Your task to perform on an android device: open wifi settings Image 0: 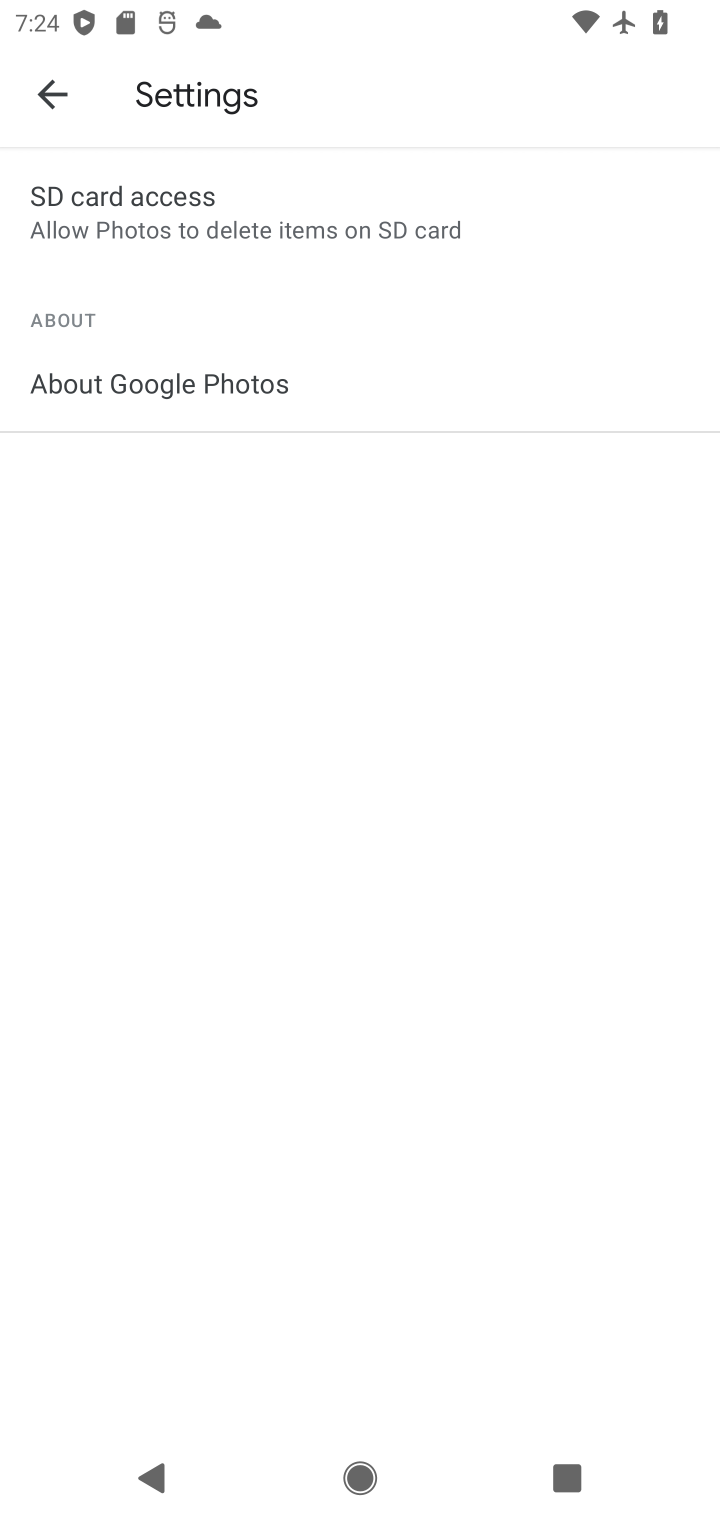
Step 0: press home button
Your task to perform on an android device: open wifi settings Image 1: 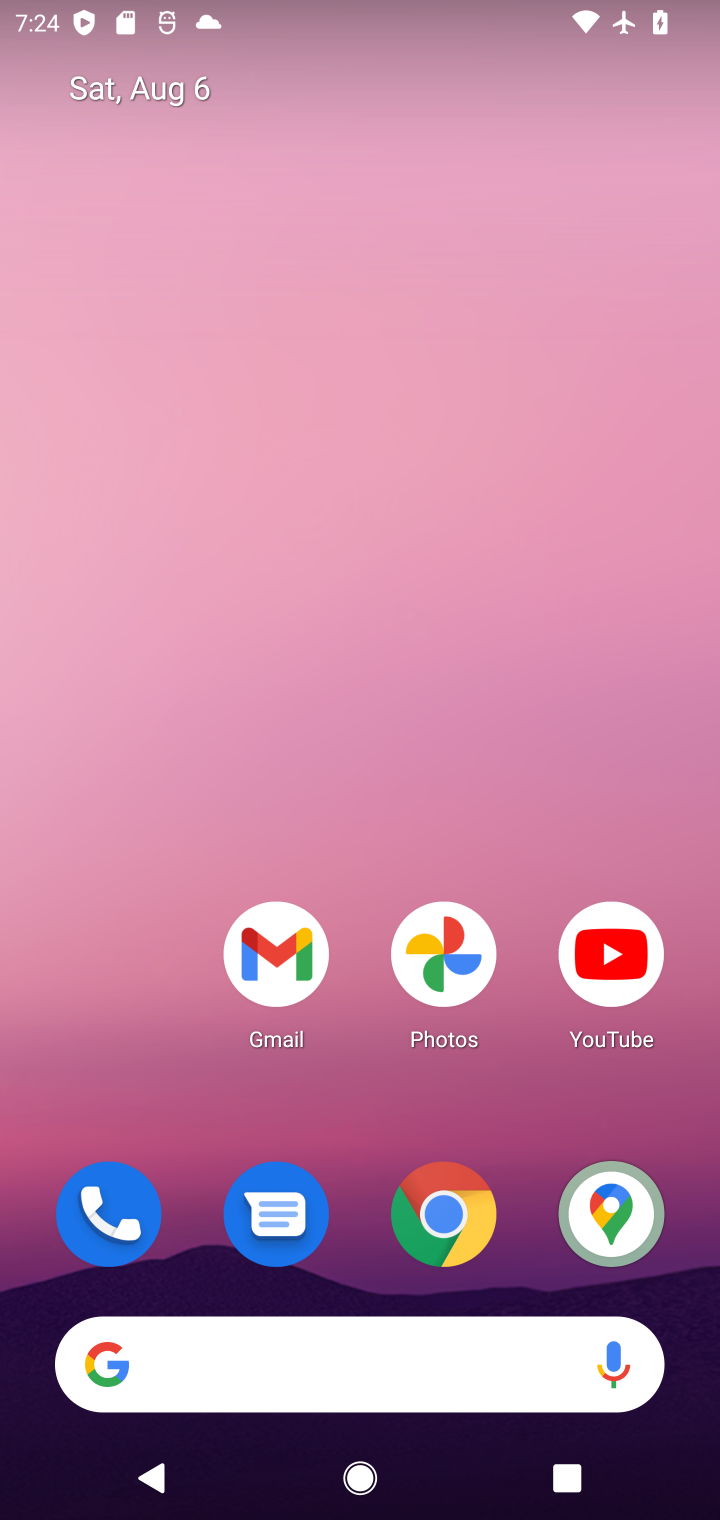
Step 1: drag from (329, 1132) to (174, 0)
Your task to perform on an android device: open wifi settings Image 2: 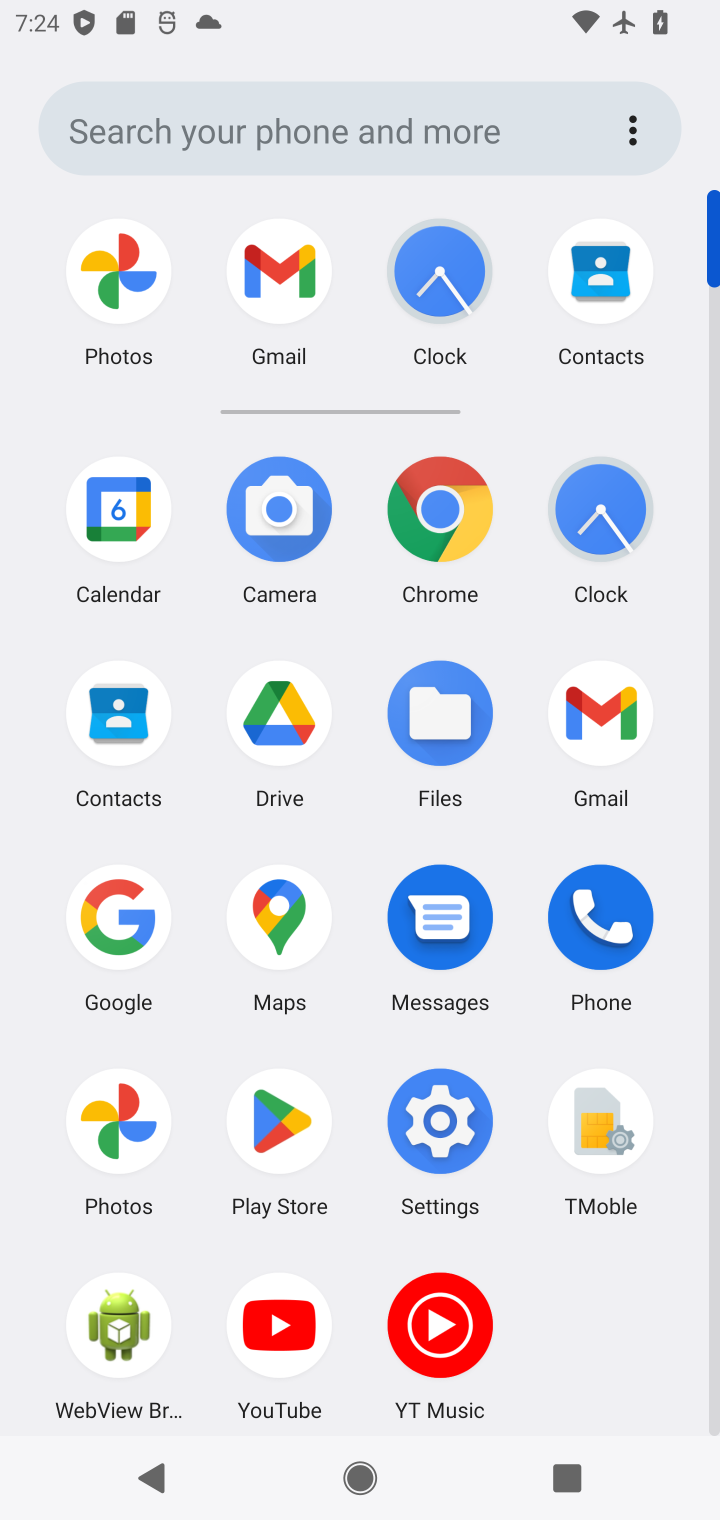
Step 2: click (455, 1117)
Your task to perform on an android device: open wifi settings Image 3: 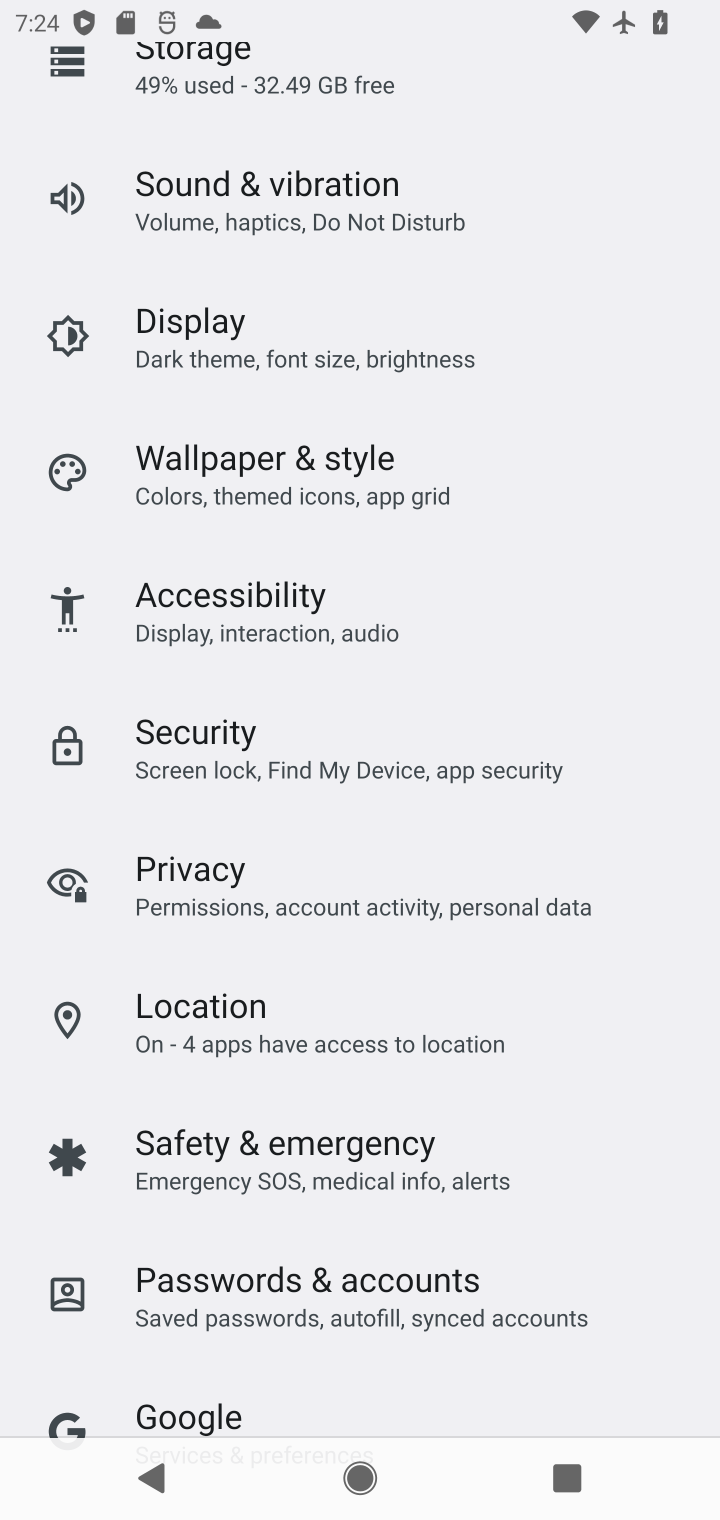
Step 3: drag from (384, 448) to (291, 1299)
Your task to perform on an android device: open wifi settings Image 4: 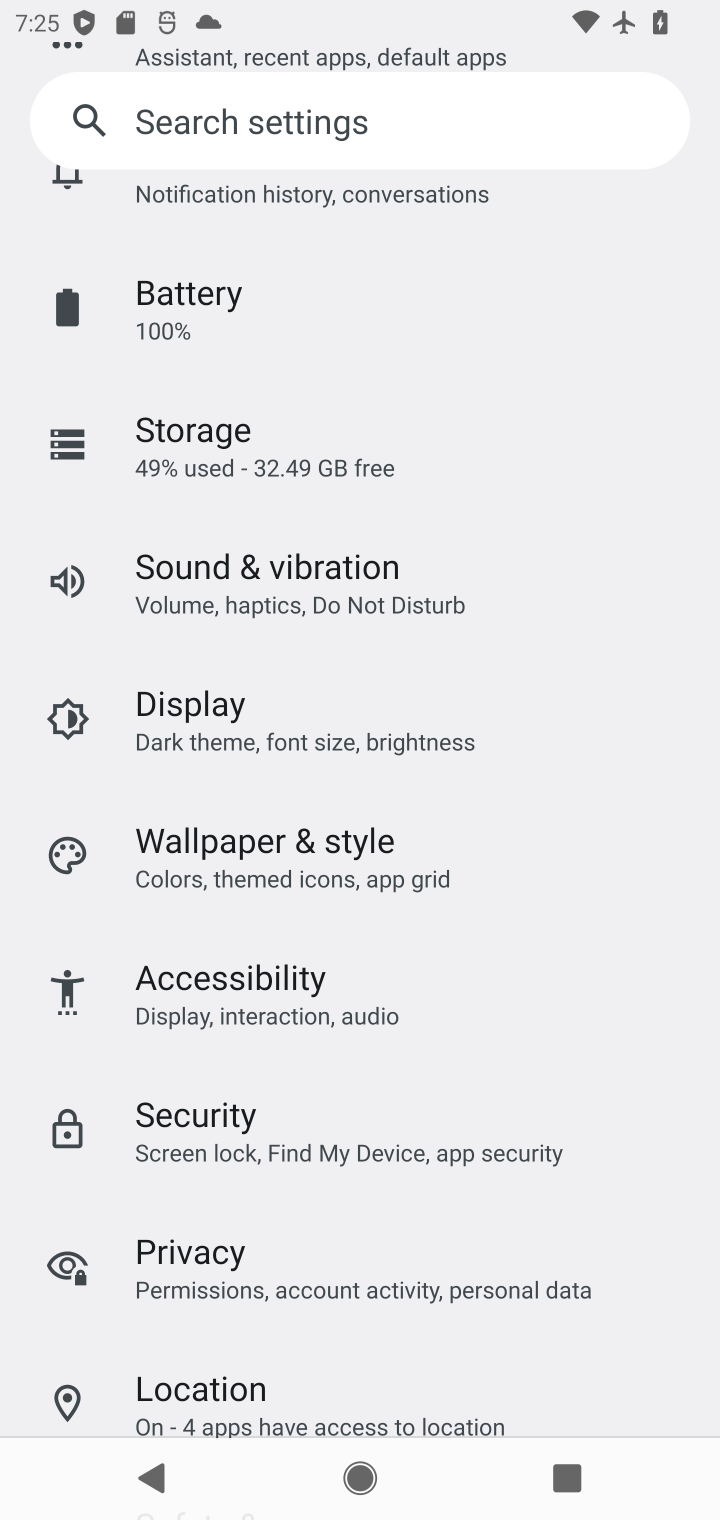
Step 4: drag from (320, 757) to (317, 1227)
Your task to perform on an android device: open wifi settings Image 5: 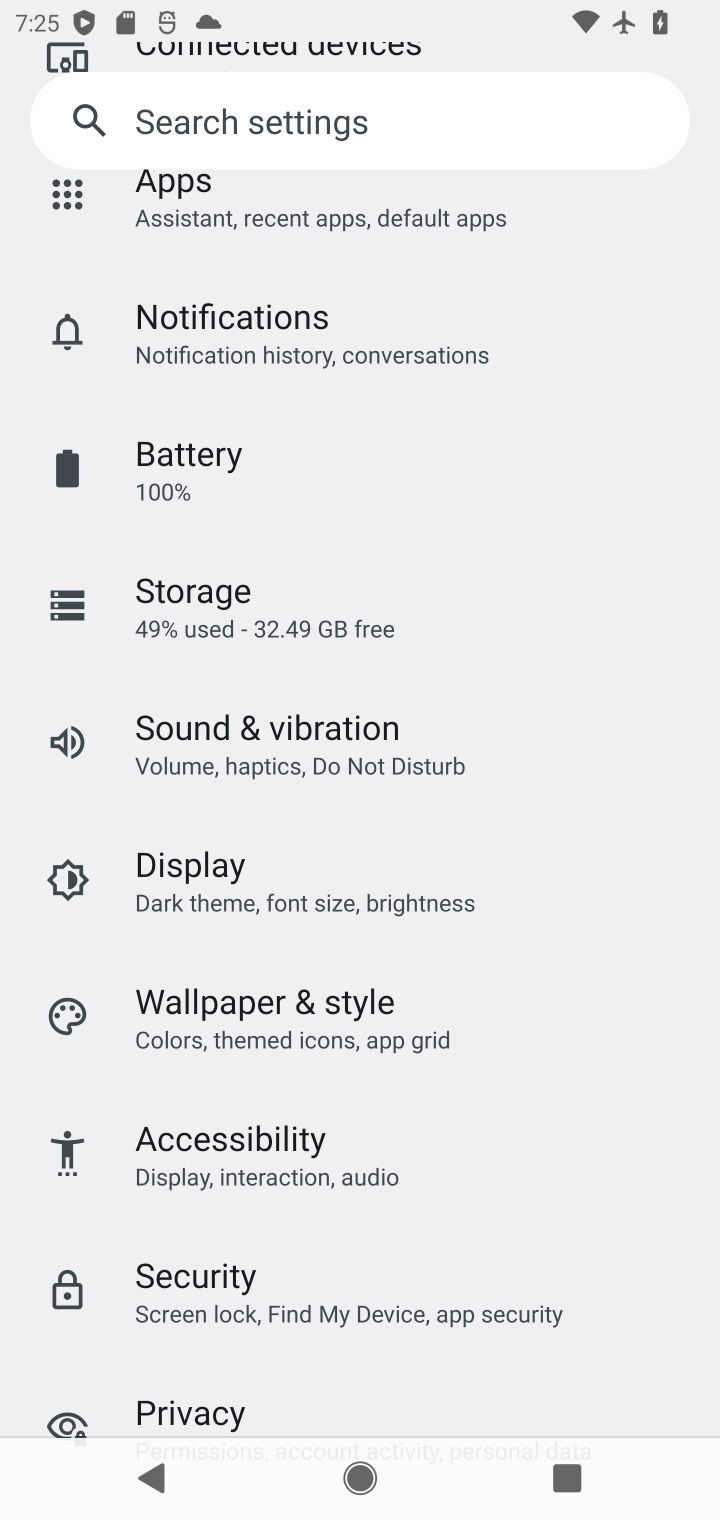
Step 5: drag from (317, 421) to (319, 1267)
Your task to perform on an android device: open wifi settings Image 6: 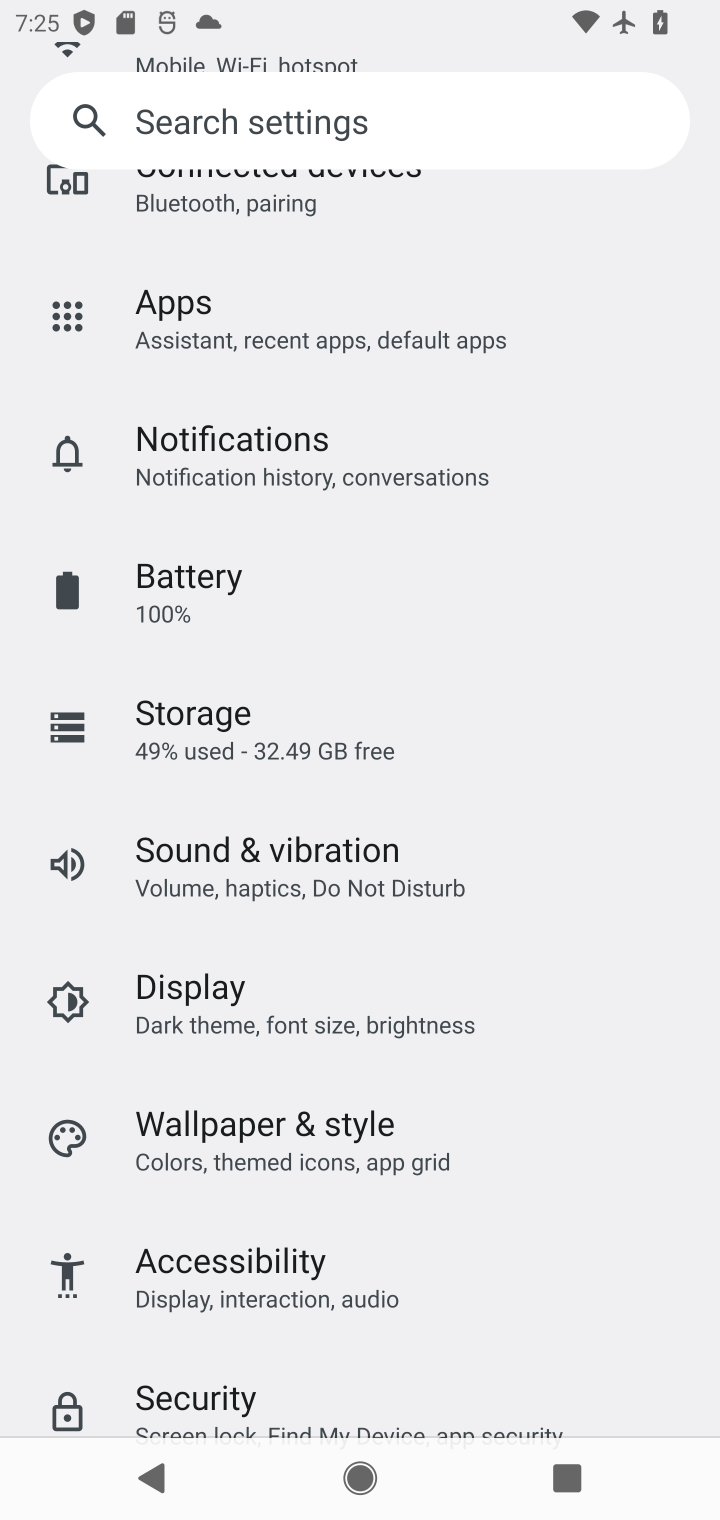
Step 6: drag from (375, 477) to (356, 1166)
Your task to perform on an android device: open wifi settings Image 7: 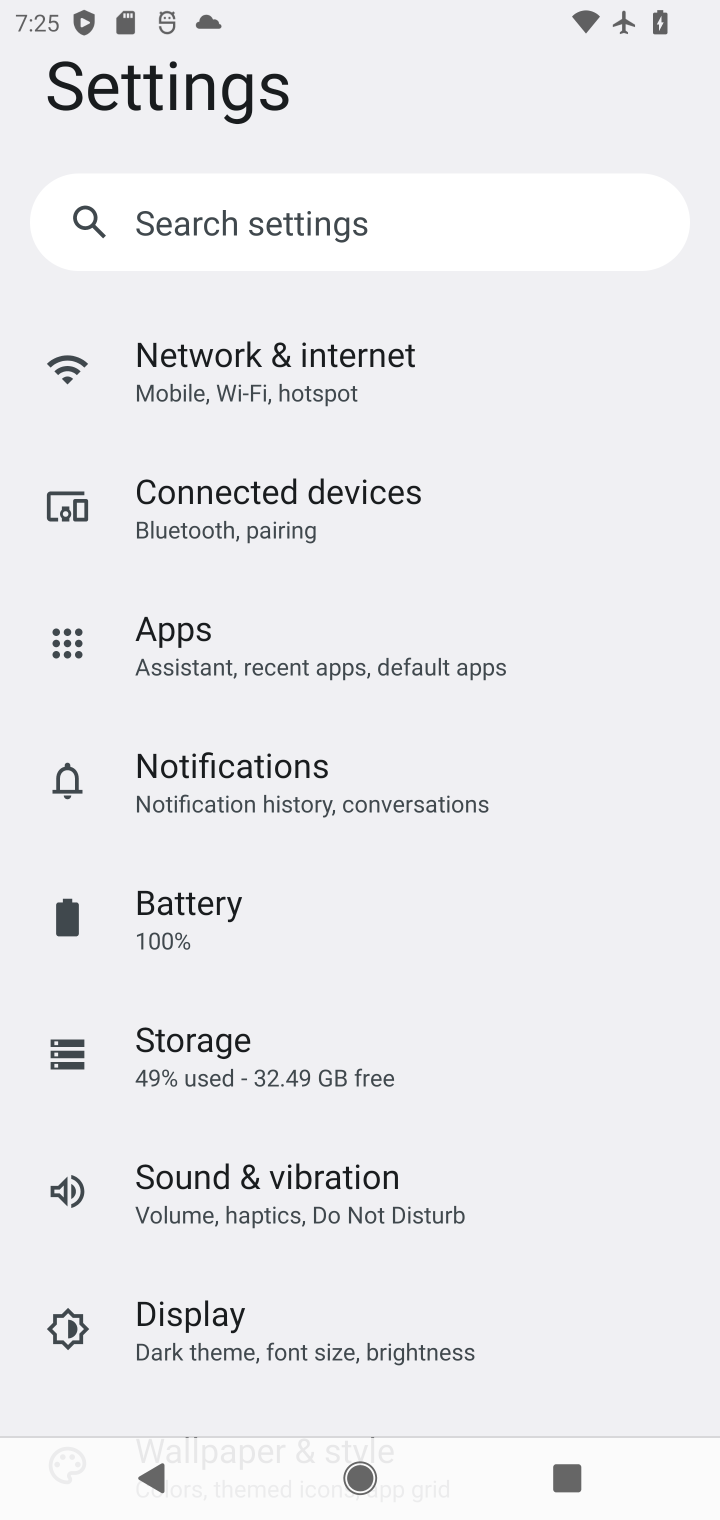
Step 7: drag from (435, 465) to (412, 1274)
Your task to perform on an android device: open wifi settings Image 8: 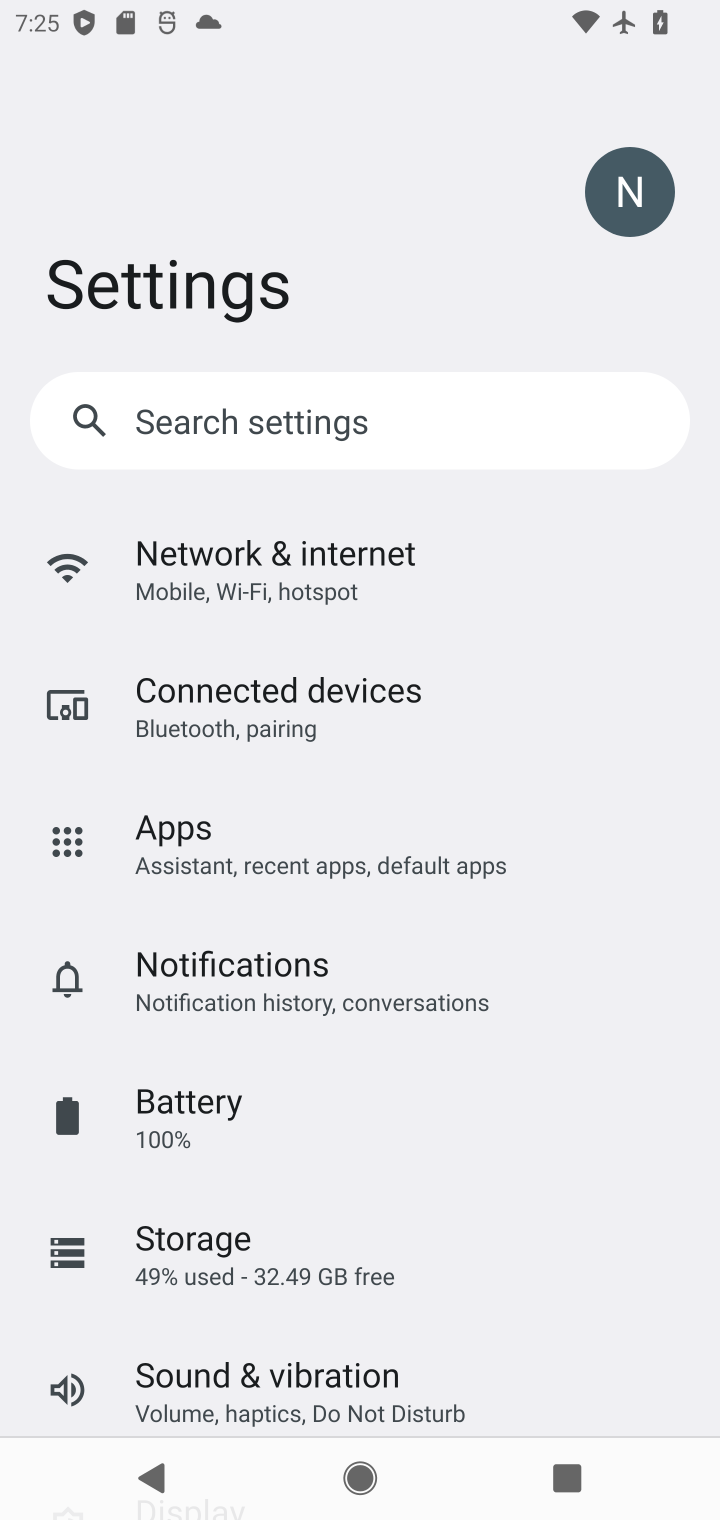
Step 8: click (325, 602)
Your task to perform on an android device: open wifi settings Image 9: 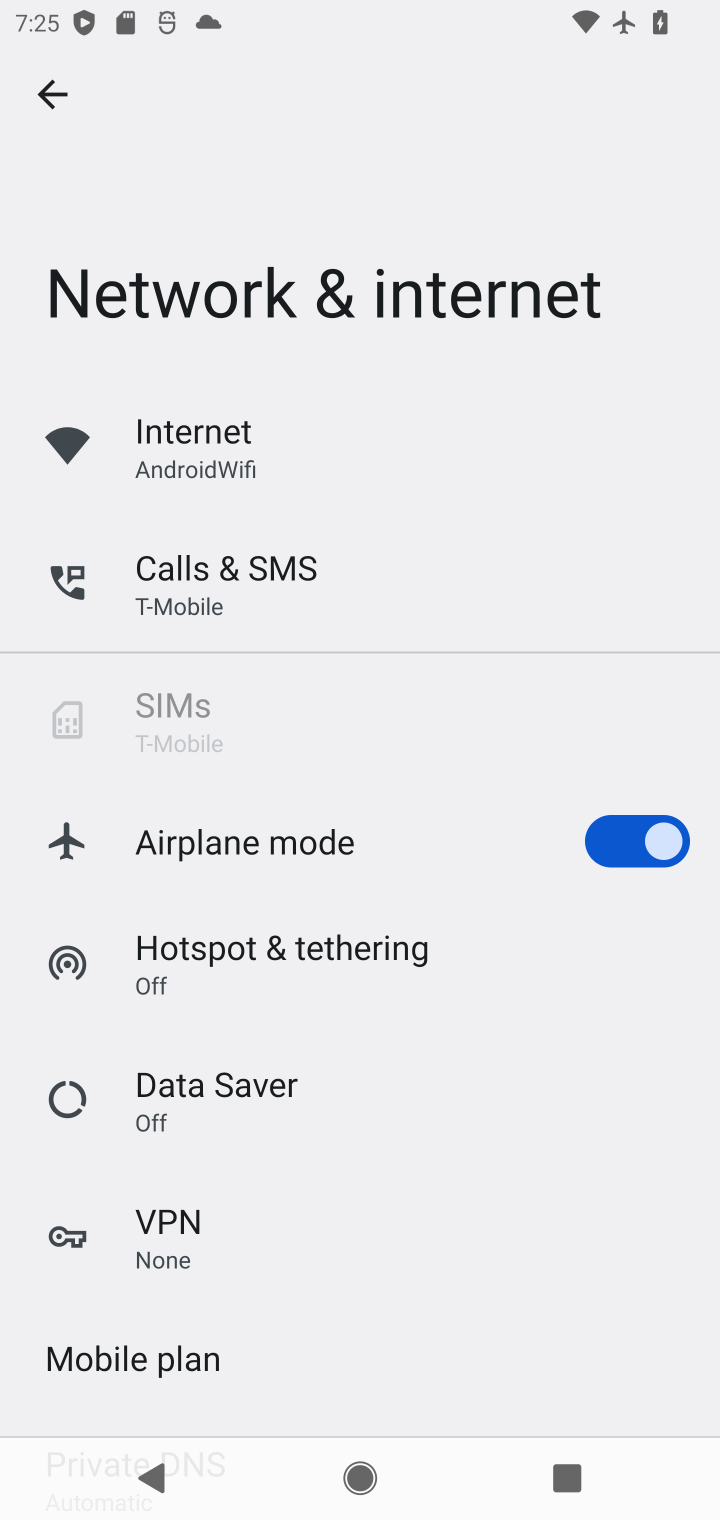
Step 9: click (244, 464)
Your task to perform on an android device: open wifi settings Image 10: 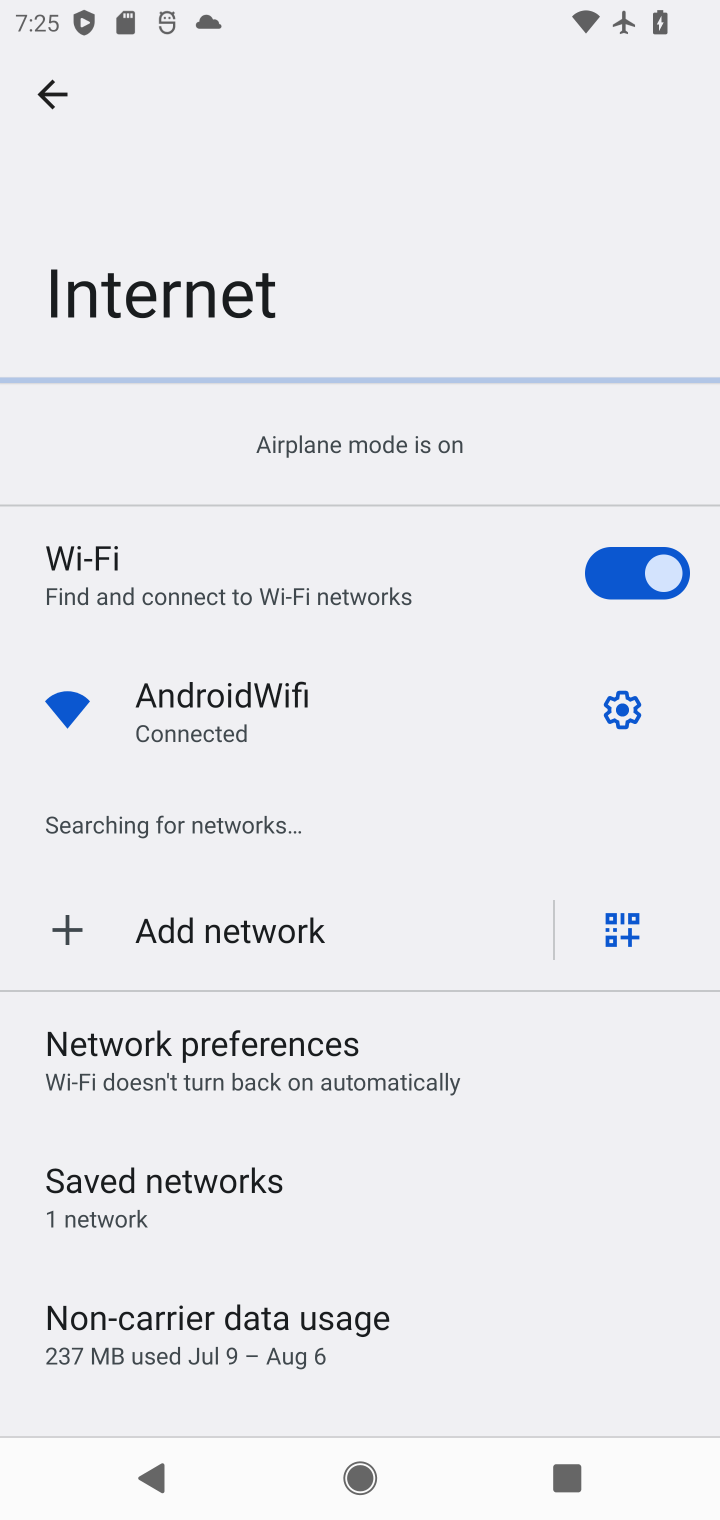
Step 10: task complete